Your task to perform on an android device: change your default location settings in chrome Image 0: 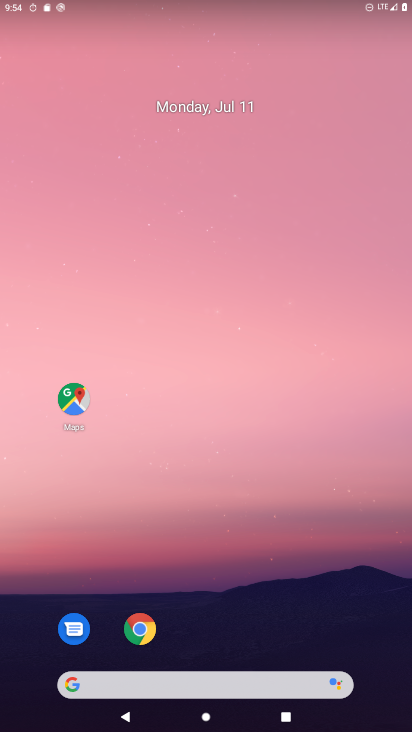
Step 0: click (144, 638)
Your task to perform on an android device: change your default location settings in chrome Image 1: 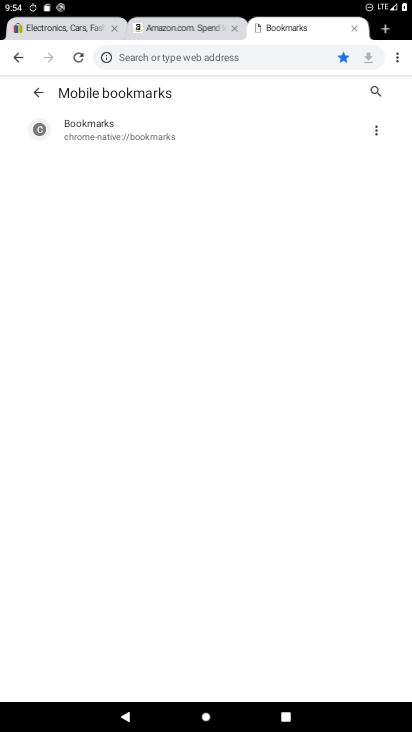
Step 1: click (403, 67)
Your task to perform on an android device: change your default location settings in chrome Image 2: 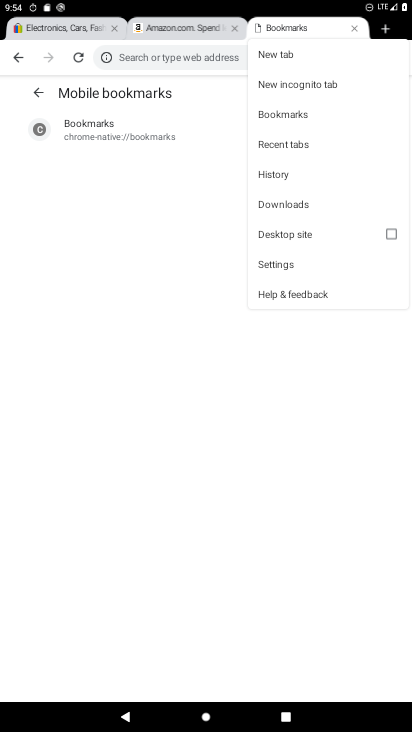
Step 2: click (285, 267)
Your task to perform on an android device: change your default location settings in chrome Image 3: 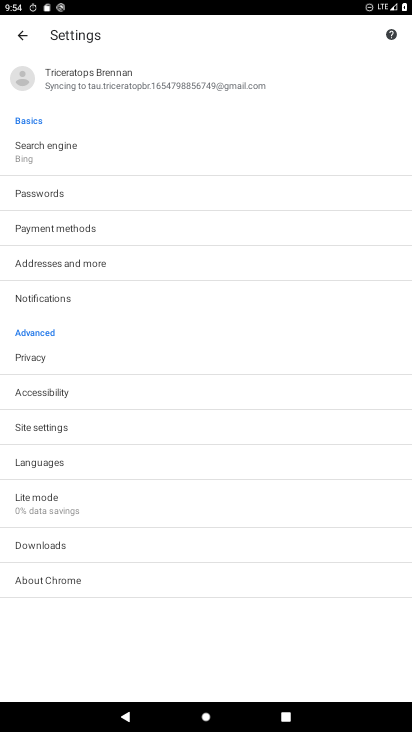
Step 3: click (88, 420)
Your task to perform on an android device: change your default location settings in chrome Image 4: 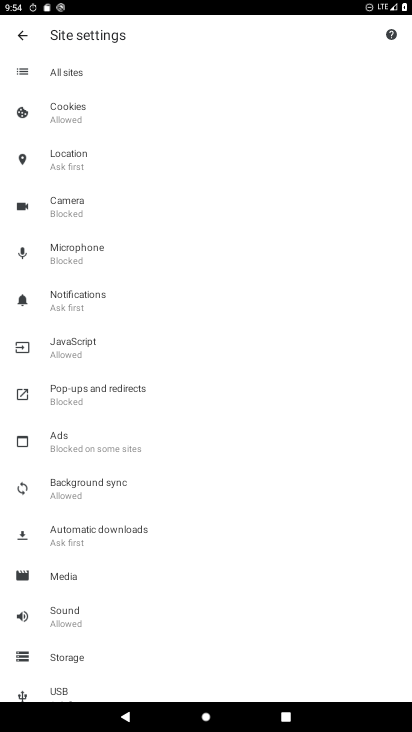
Step 4: click (102, 168)
Your task to perform on an android device: change your default location settings in chrome Image 5: 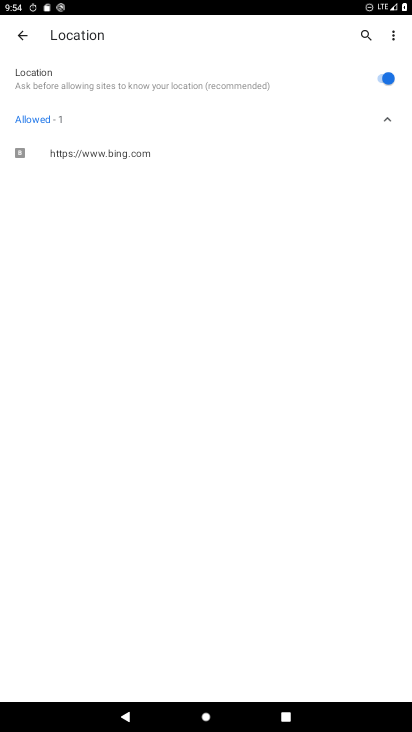
Step 5: click (379, 76)
Your task to perform on an android device: change your default location settings in chrome Image 6: 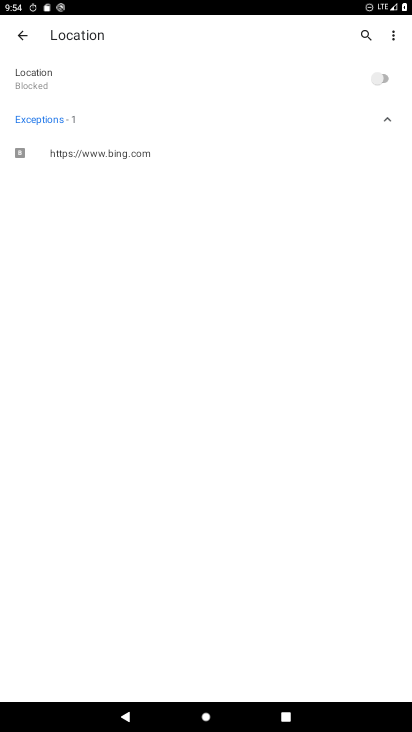
Step 6: task complete